Your task to perform on an android device: Go to ESPN.com Image 0: 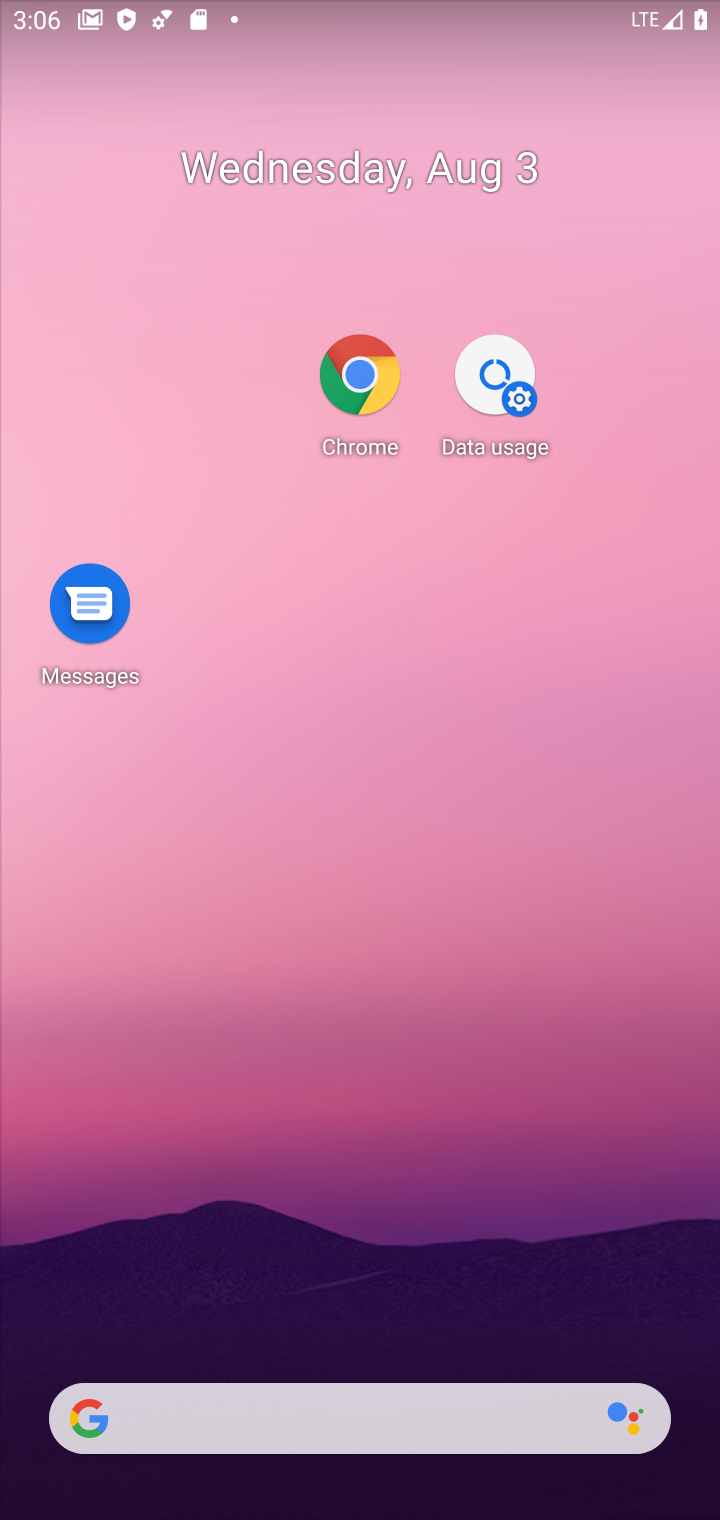
Step 0: press back button
Your task to perform on an android device: Go to ESPN.com Image 1: 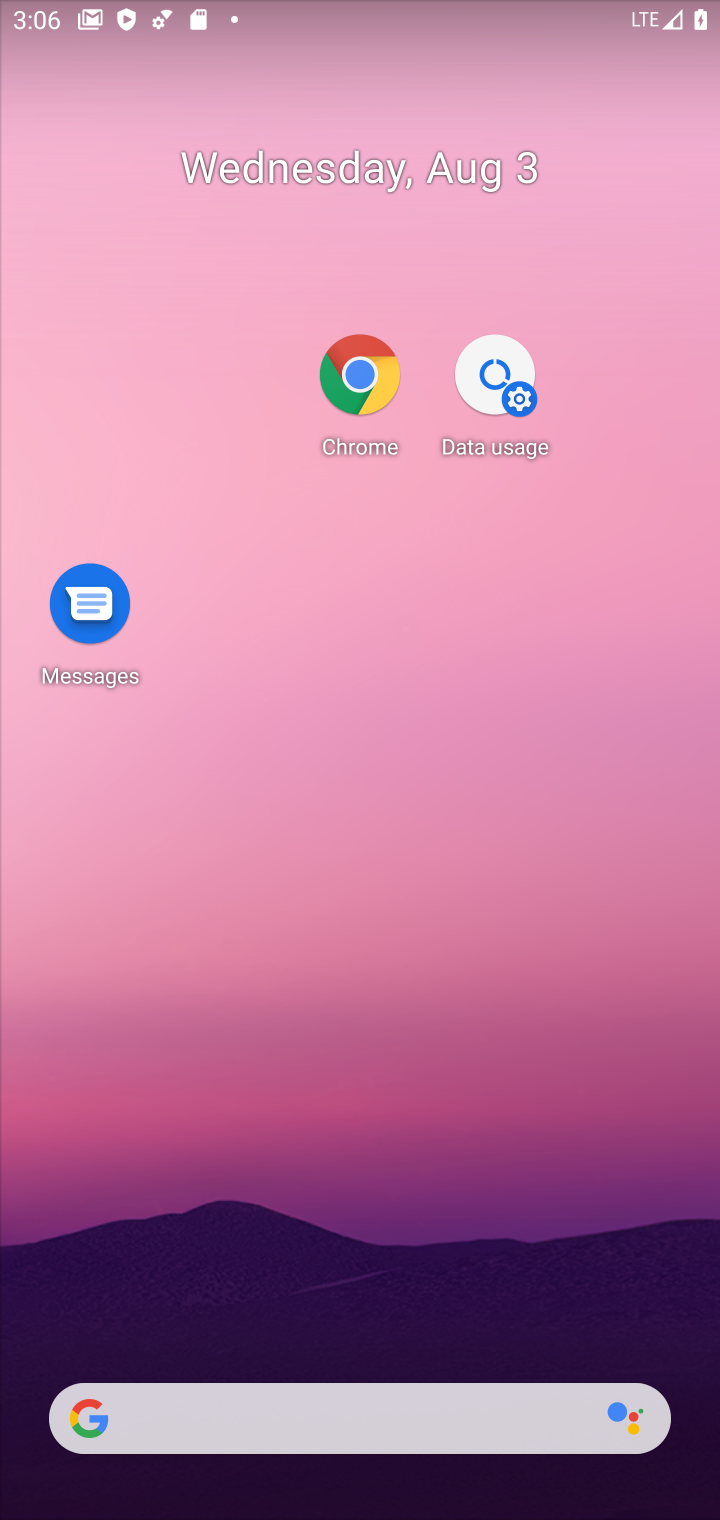
Step 1: press back button
Your task to perform on an android device: Go to ESPN.com Image 2: 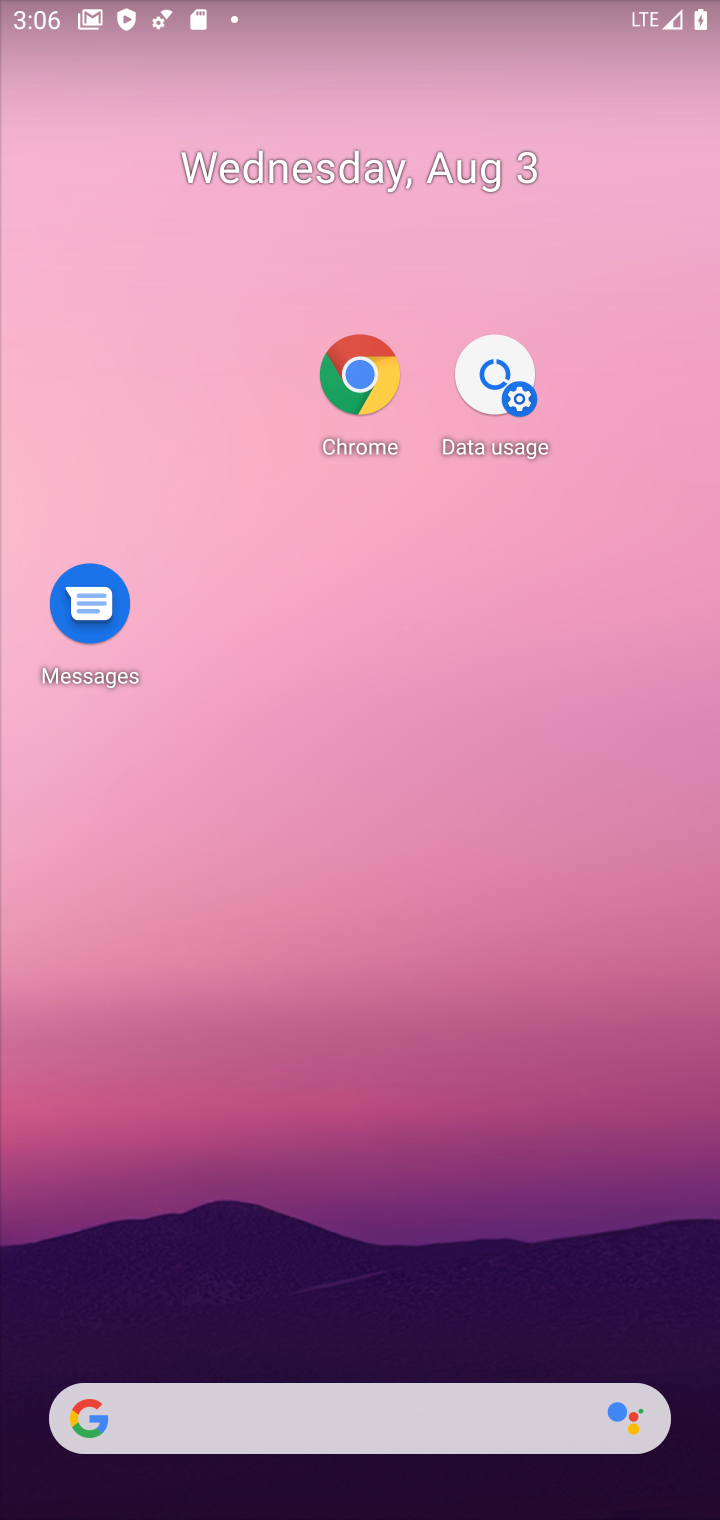
Step 2: click (124, 279)
Your task to perform on an android device: Go to ESPN.com Image 3: 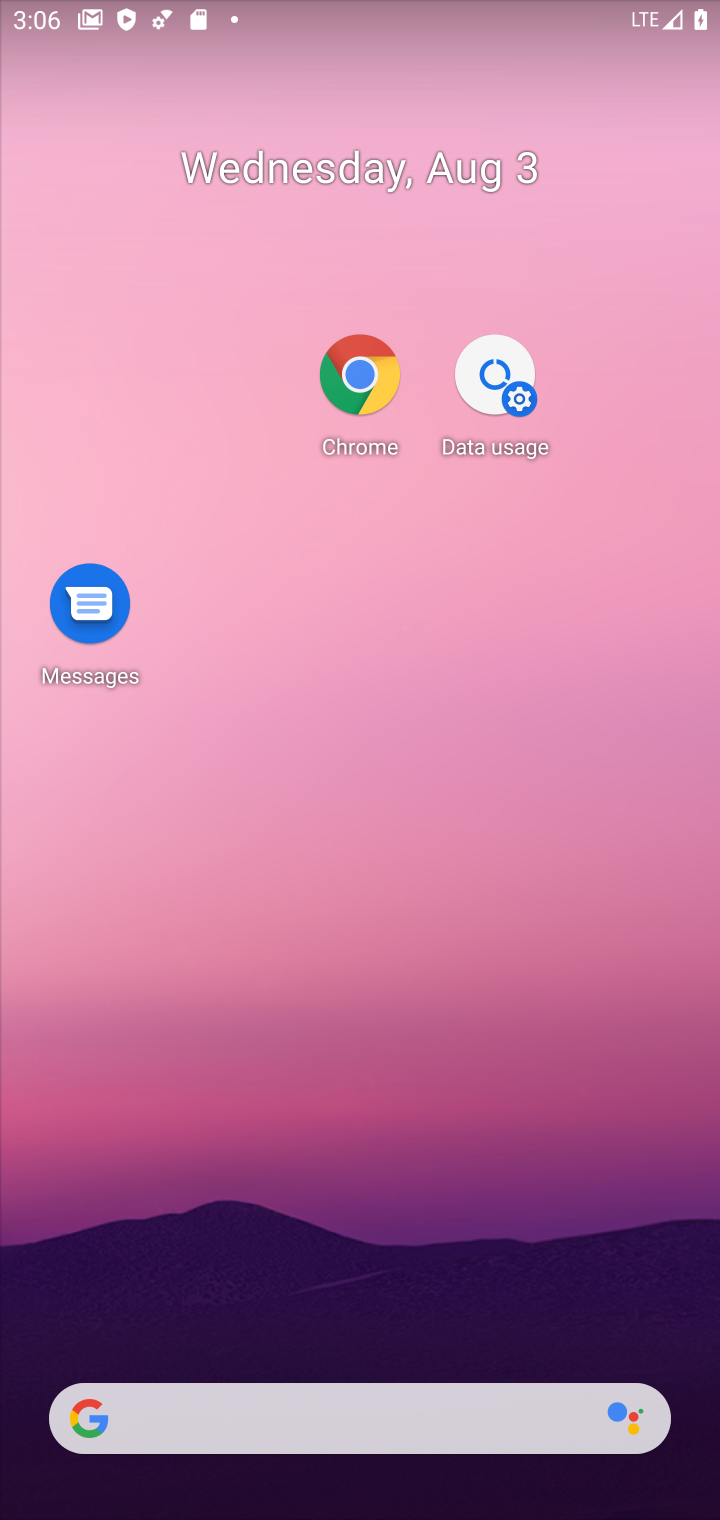
Step 3: drag from (467, 887) to (326, 125)
Your task to perform on an android device: Go to ESPN.com Image 4: 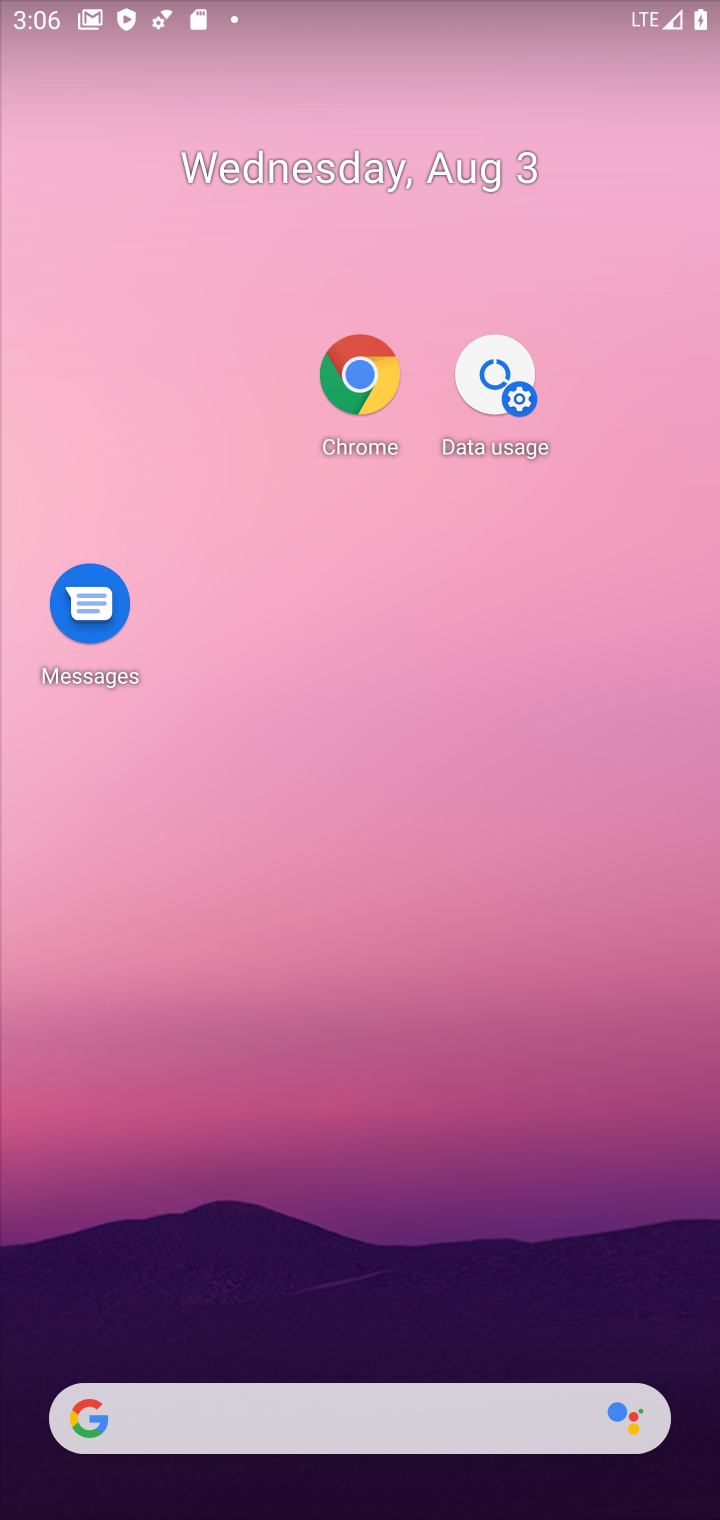
Step 4: drag from (428, 1082) to (363, 237)
Your task to perform on an android device: Go to ESPN.com Image 5: 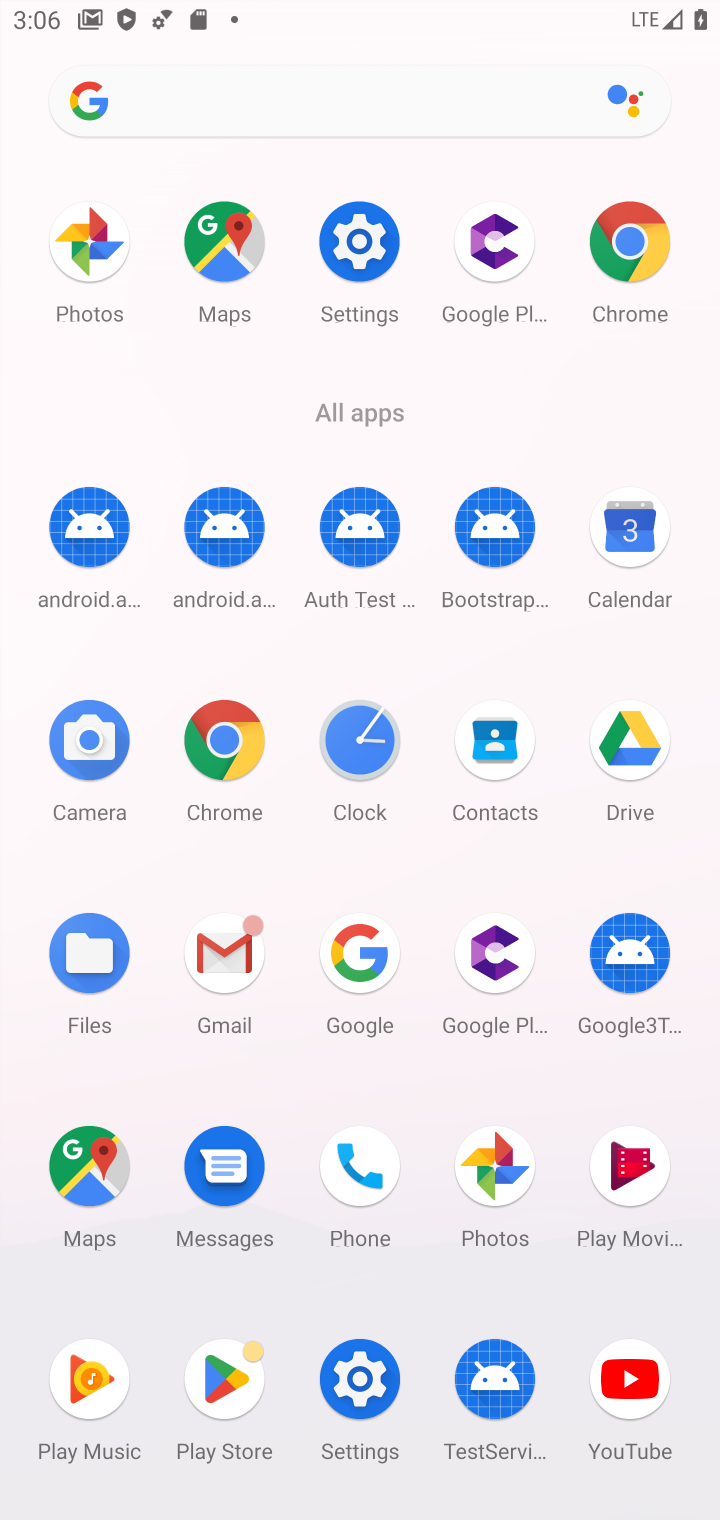
Step 5: click (616, 226)
Your task to perform on an android device: Go to ESPN.com Image 6: 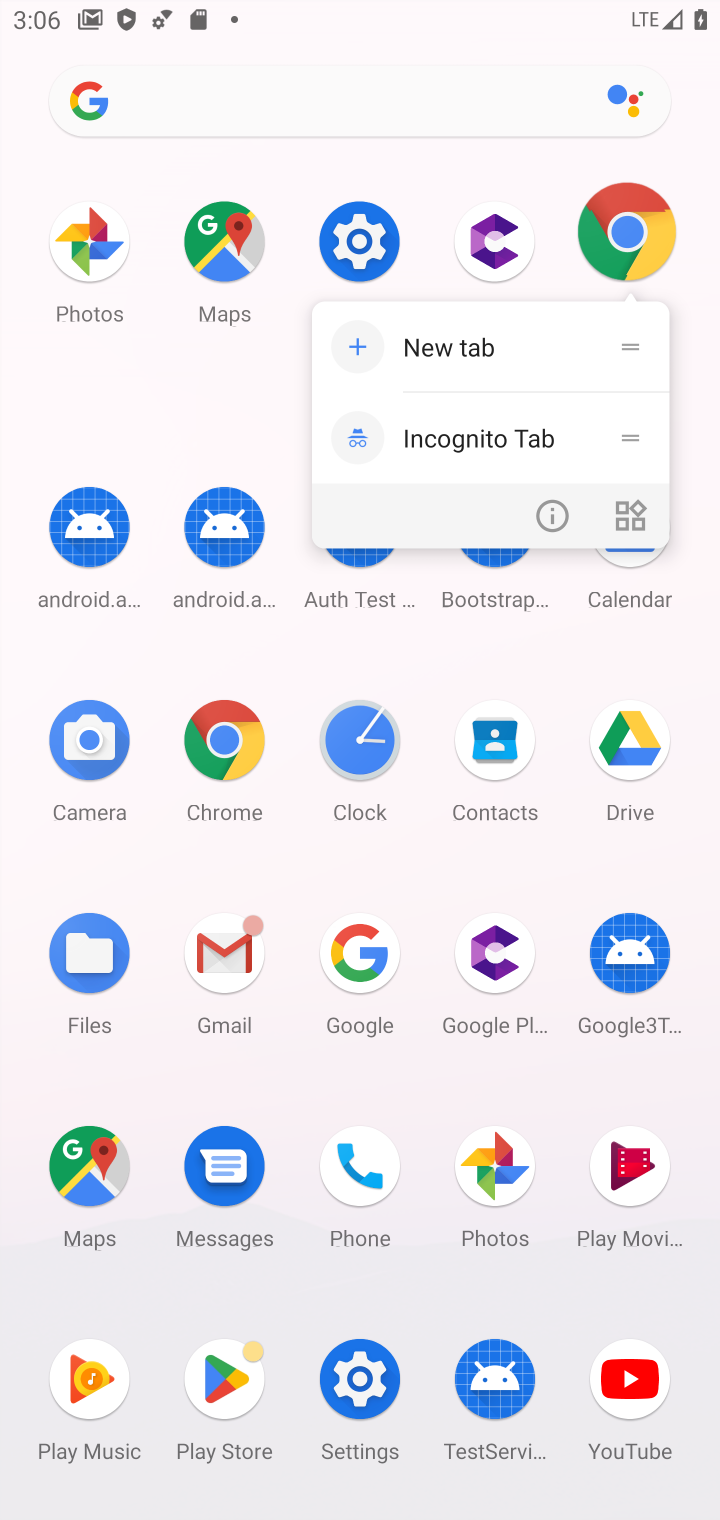
Step 6: click (611, 217)
Your task to perform on an android device: Go to ESPN.com Image 7: 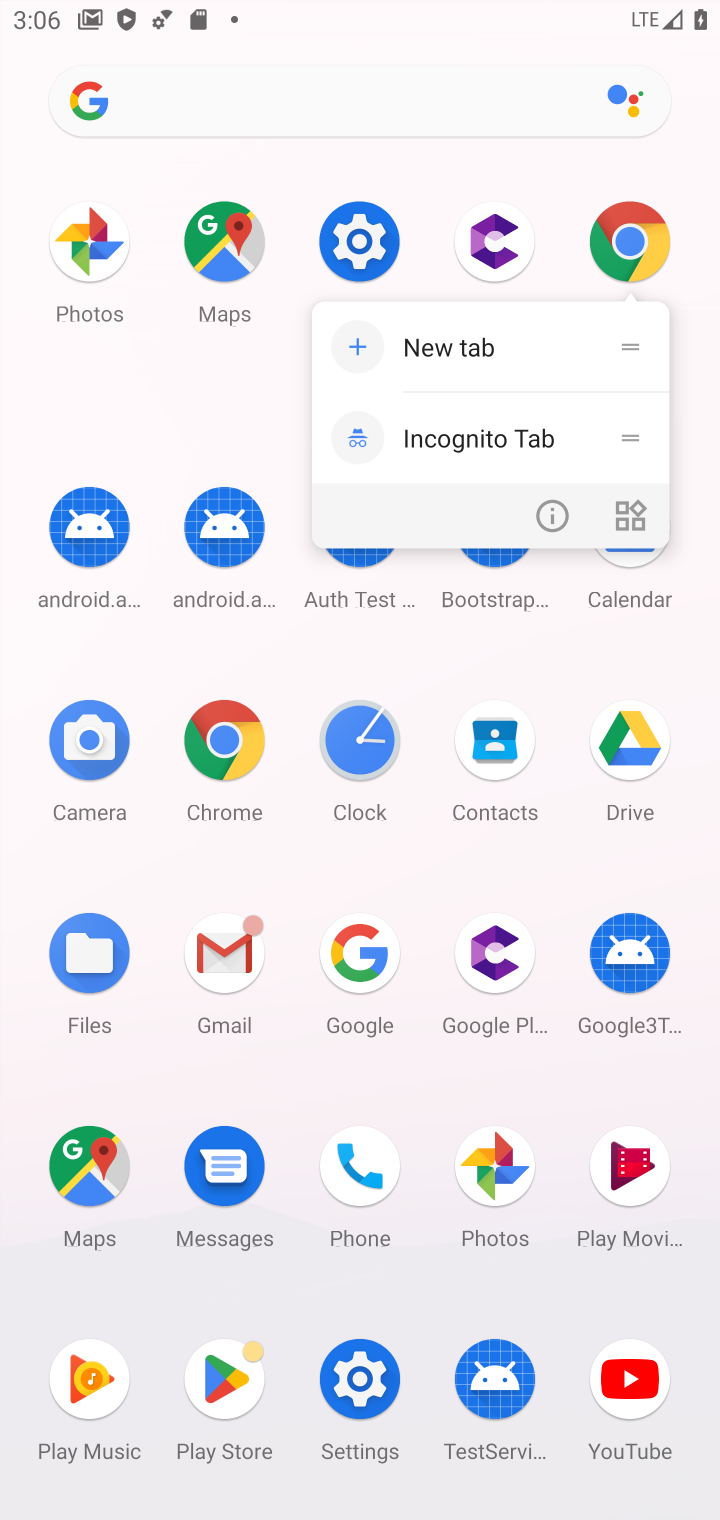
Step 7: click (461, 330)
Your task to perform on an android device: Go to ESPN.com Image 8: 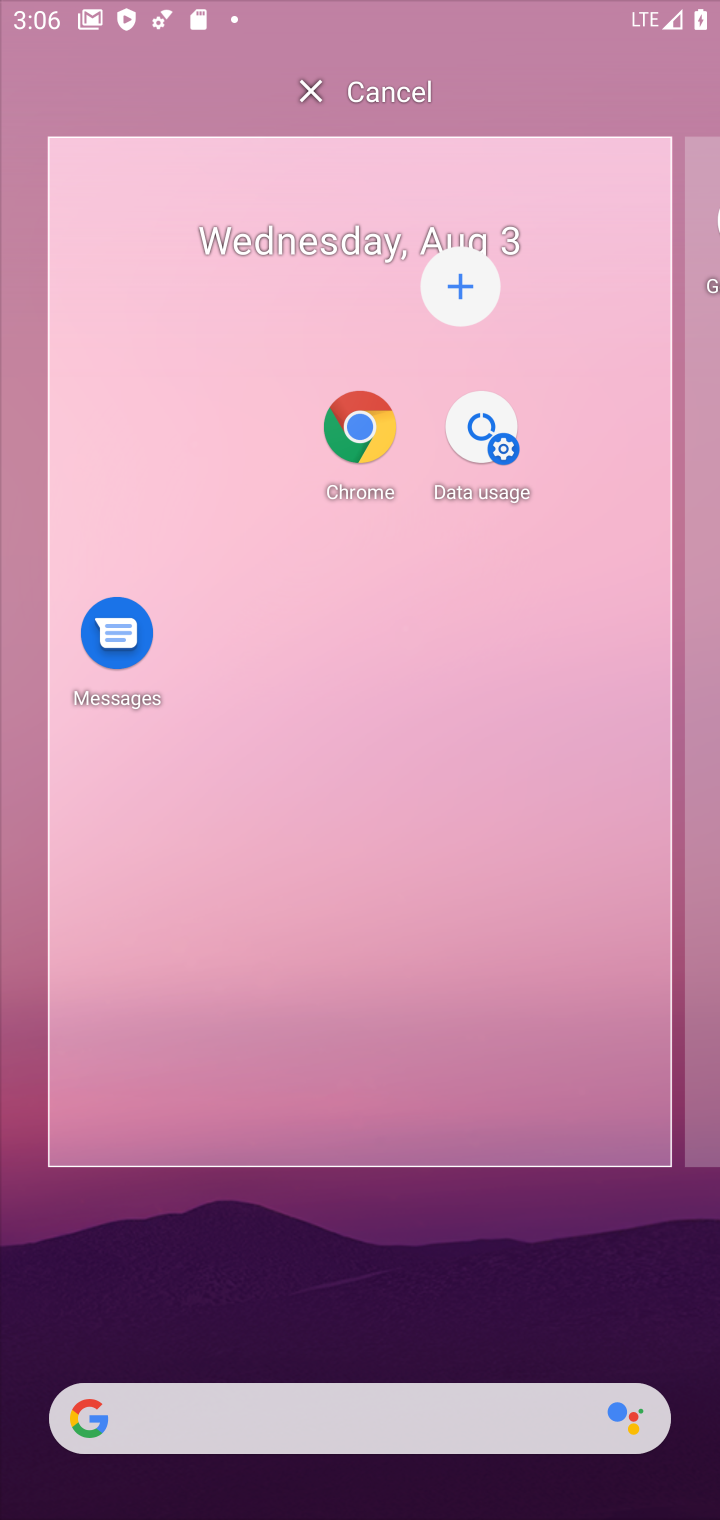
Step 8: click (353, 348)
Your task to perform on an android device: Go to ESPN.com Image 9: 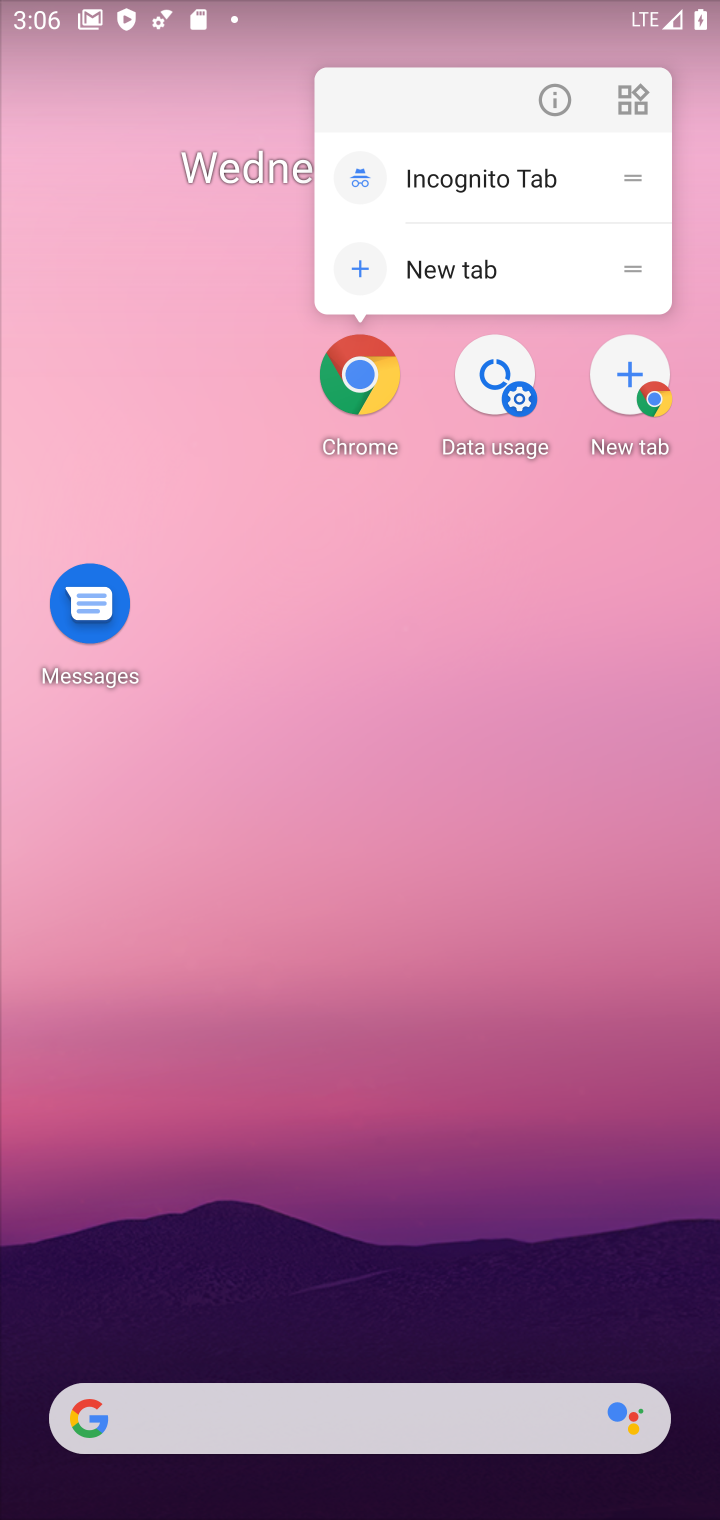
Step 9: click (371, 361)
Your task to perform on an android device: Go to ESPN.com Image 10: 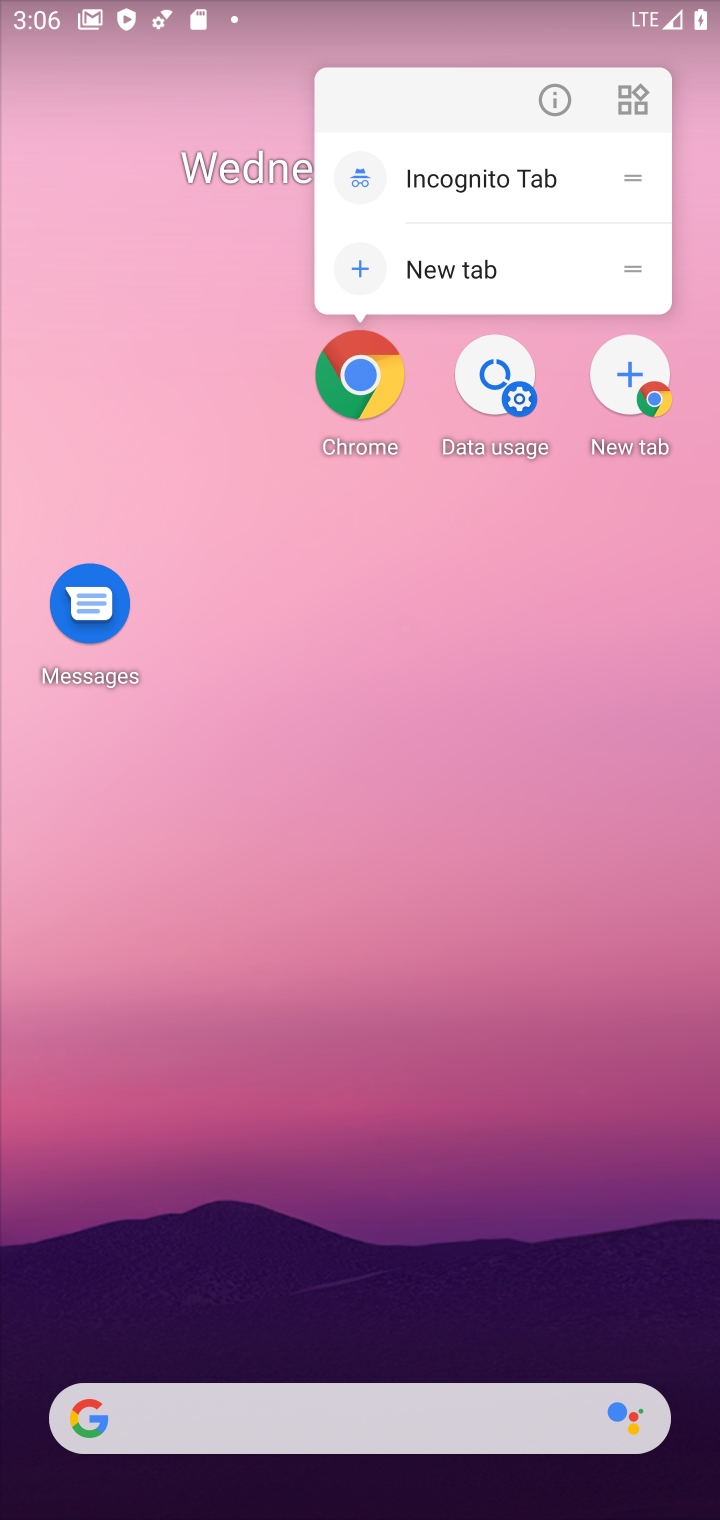
Step 10: click (354, 395)
Your task to perform on an android device: Go to ESPN.com Image 11: 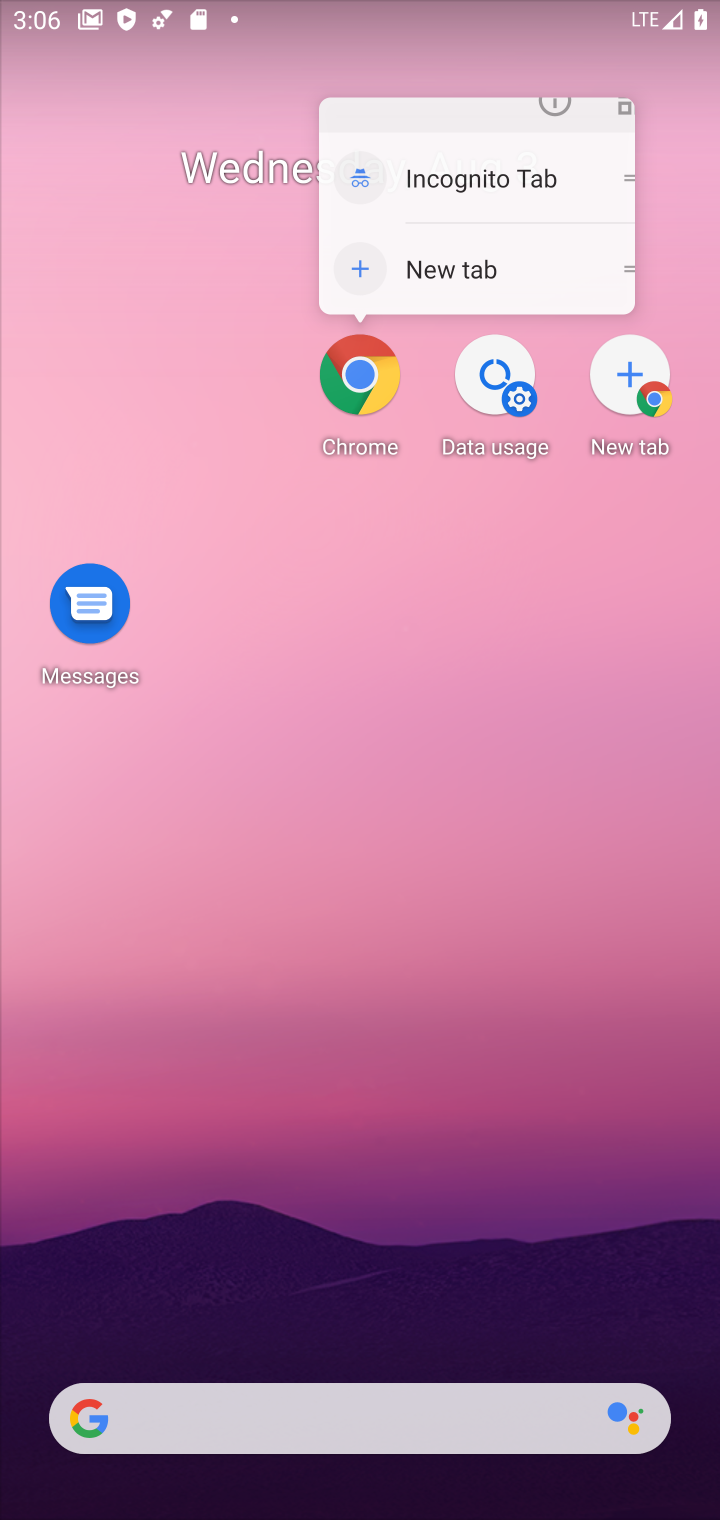
Step 11: click (414, 275)
Your task to perform on an android device: Go to ESPN.com Image 12: 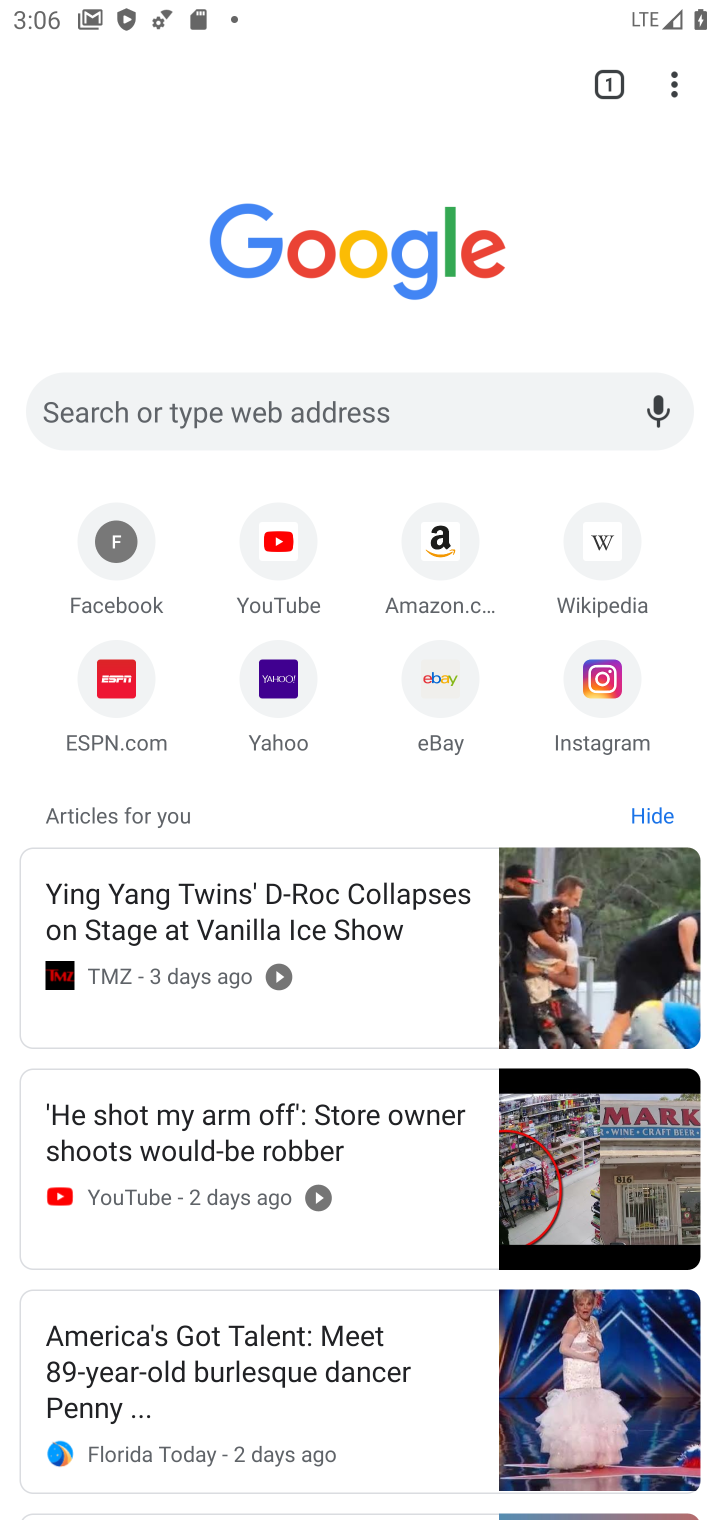
Step 12: click (126, 636)
Your task to perform on an android device: Go to ESPN.com Image 13: 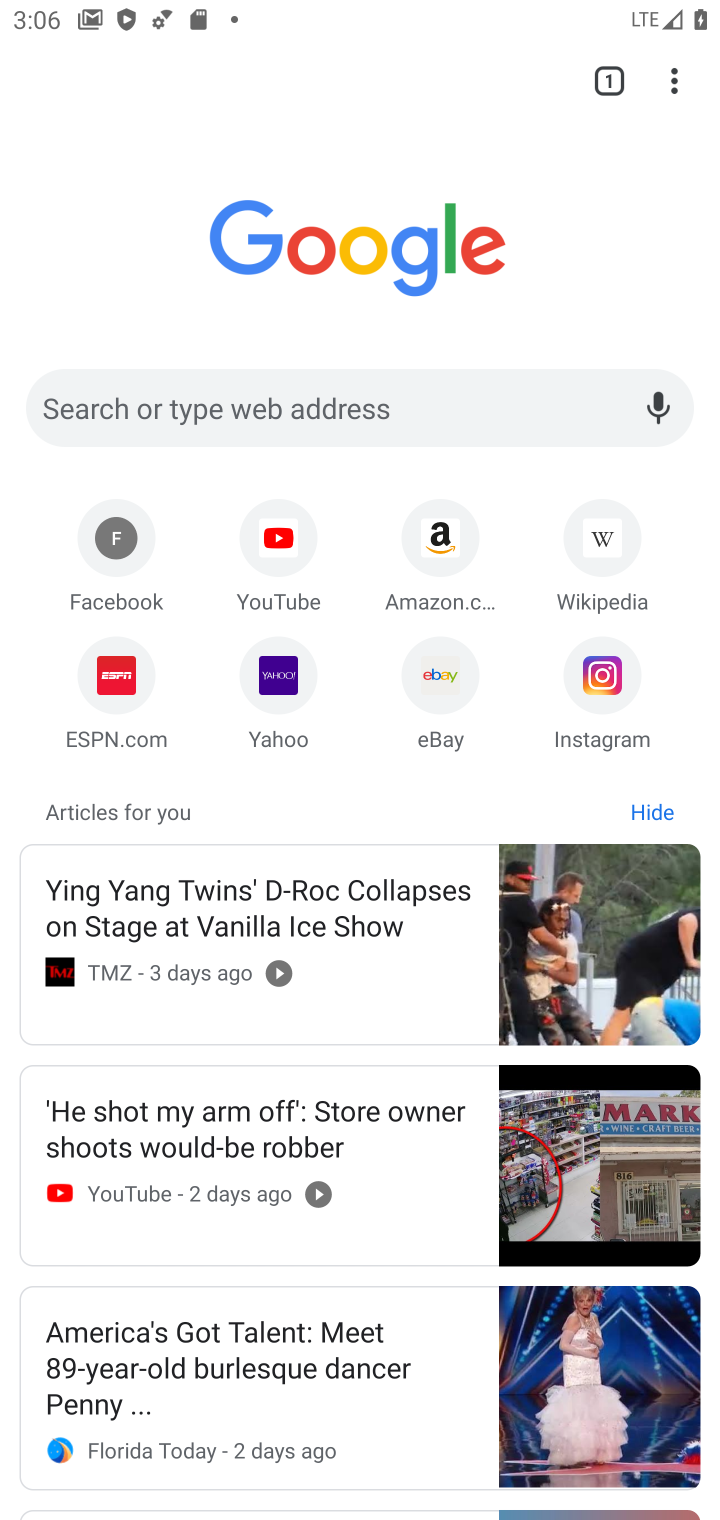
Step 13: click (97, 686)
Your task to perform on an android device: Go to ESPN.com Image 14: 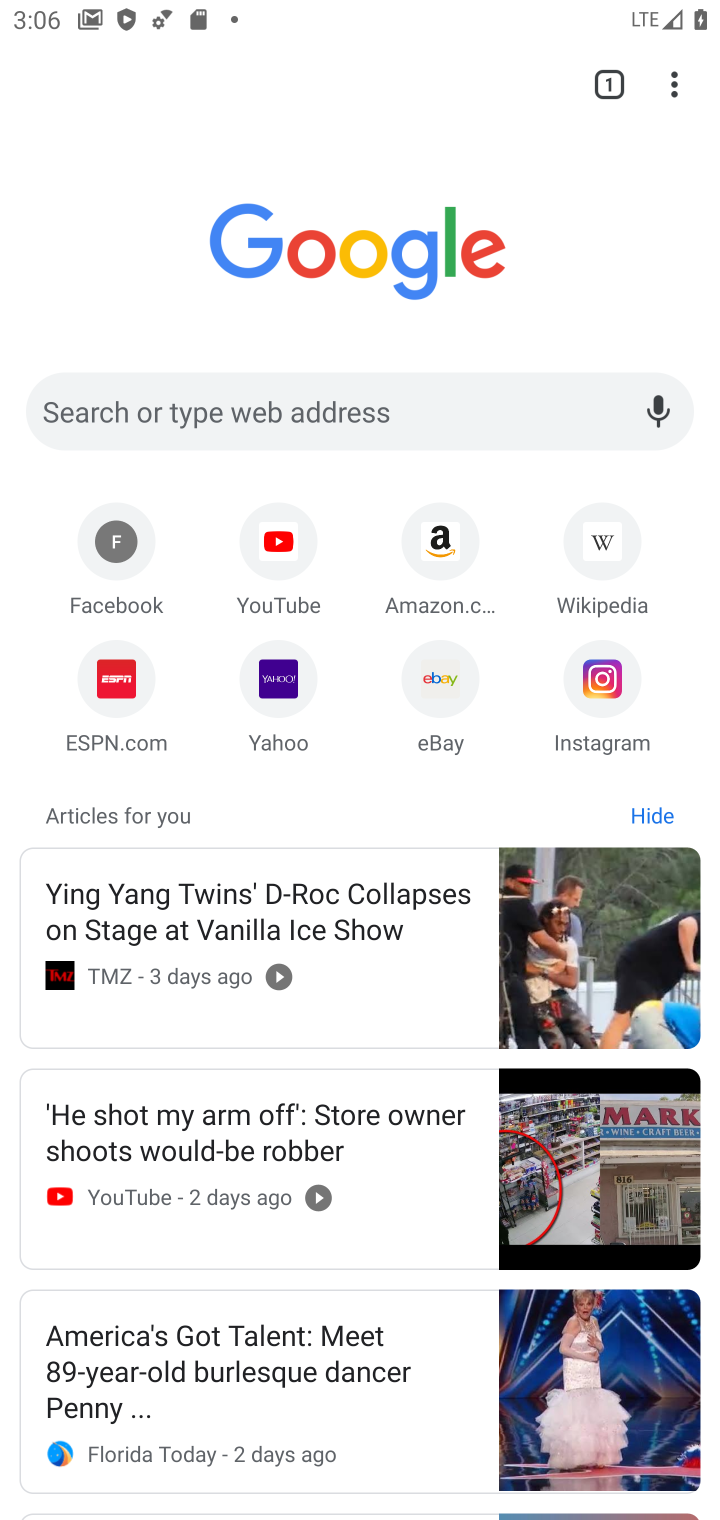
Step 14: click (94, 682)
Your task to perform on an android device: Go to ESPN.com Image 15: 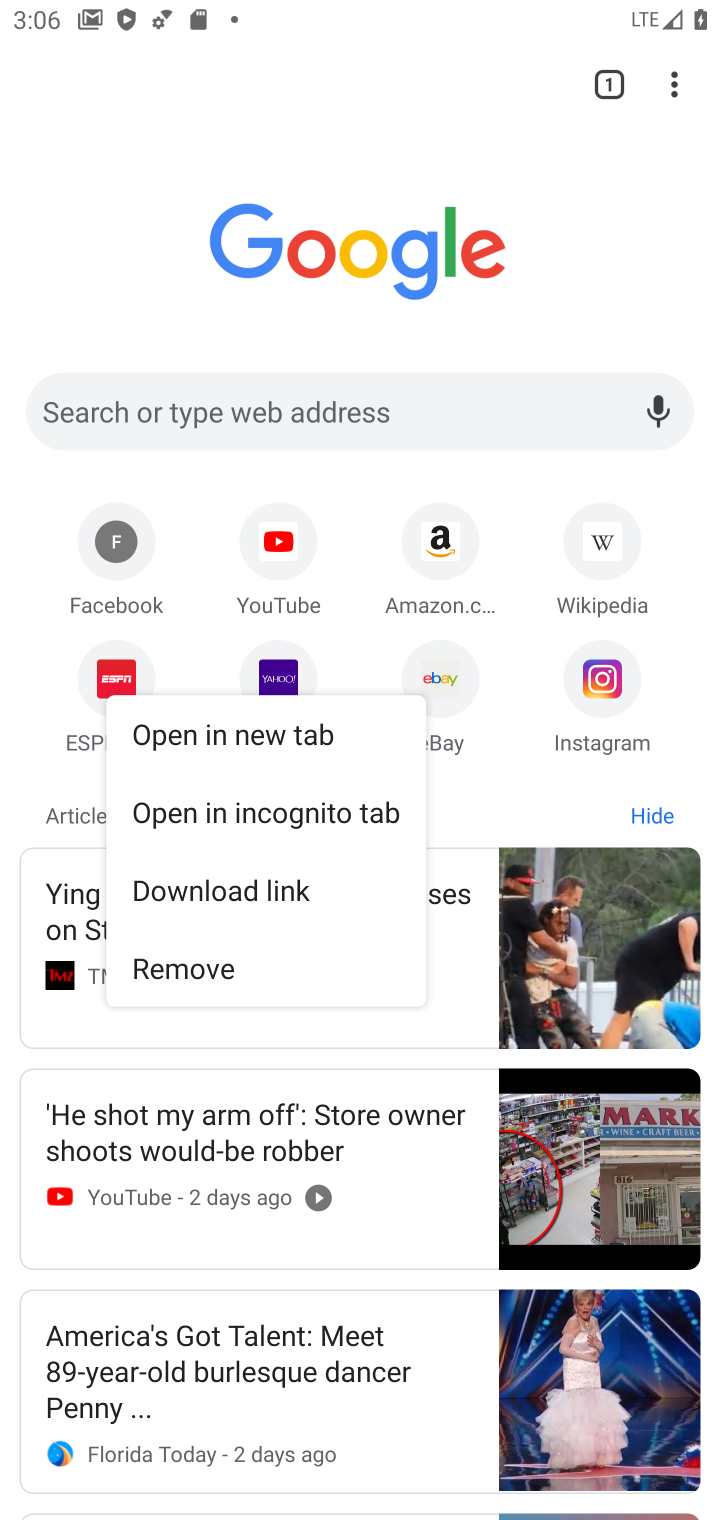
Step 15: task complete